Your task to perform on an android device: turn on bluetooth scan Image 0: 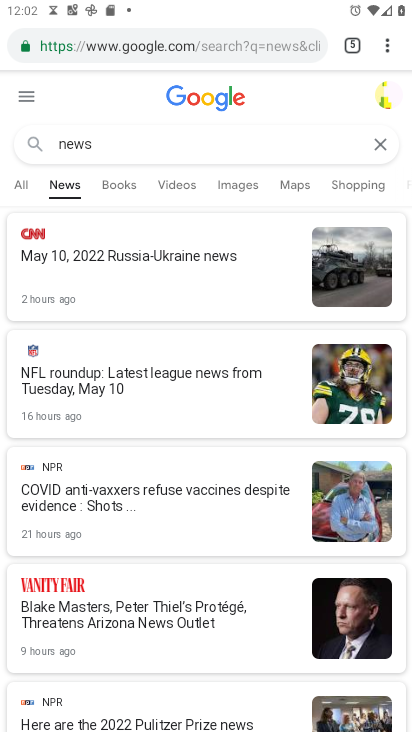
Step 0: press home button
Your task to perform on an android device: turn on bluetooth scan Image 1: 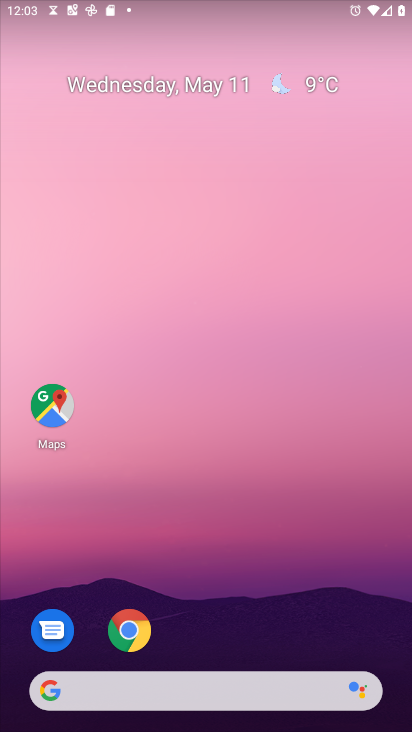
Step 1: drag from (280, 568) to (339, 253)
Your task to perform on an android device: turn on bluetooth scan Image 2: 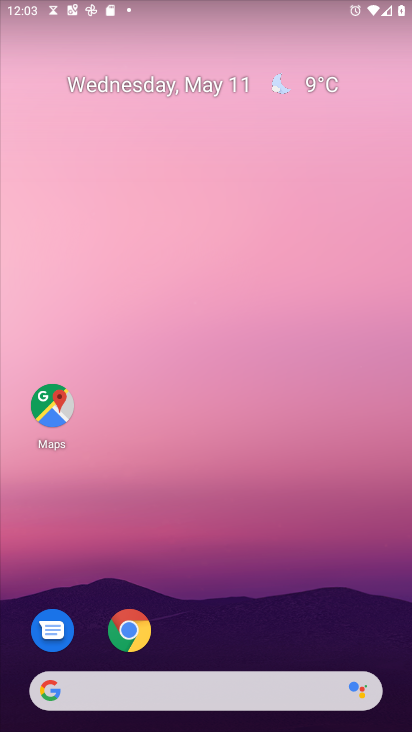
Step 2: drag from (256, 590) to (372, 57)
Your task to perform on an android device: turn on bluetooth scan Image 3: 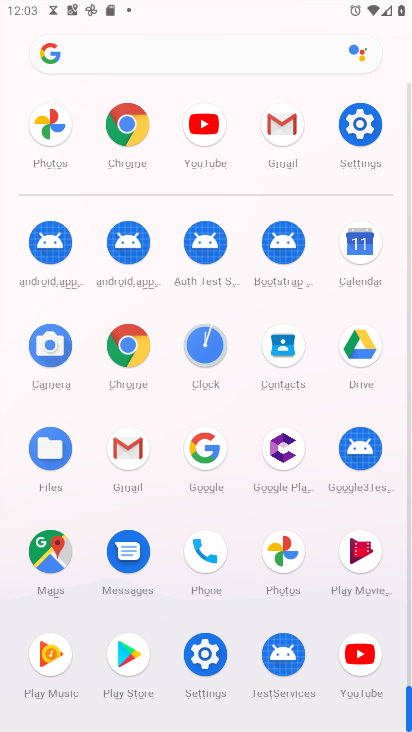
Step 3: click (354, 131)
Your task to perform on an android device: turn on bluetooth scan Image 4: 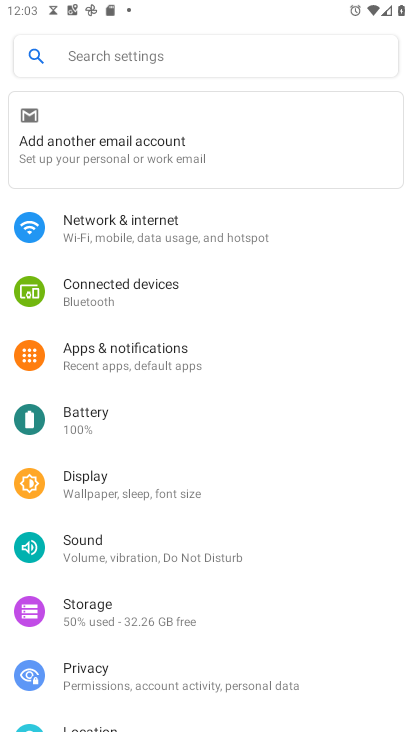
Step 4: click (83, 302)
Your task to perform on an android device: turn on bluetooth scan Image 5: 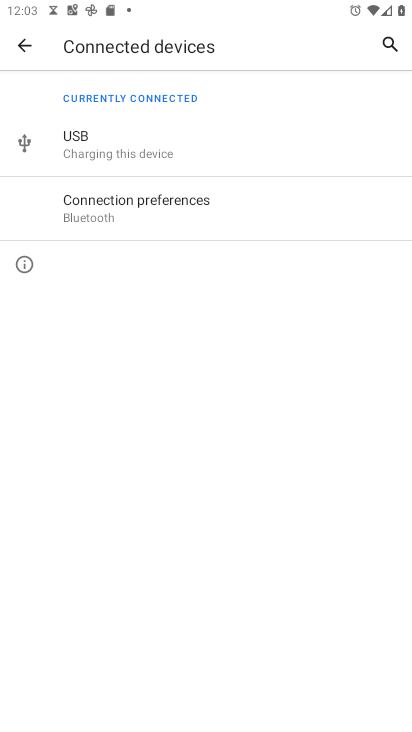
Step 5: click (160, 219)
Your task to perform on an android device: turn on bluetooth scan Image 6: 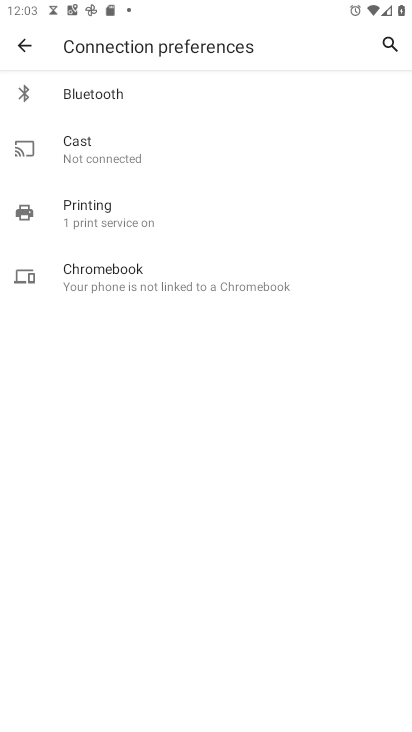
Step 6: click (152, 221)
Your task to perform on an android device: turn on bluetooth scan Image 7: 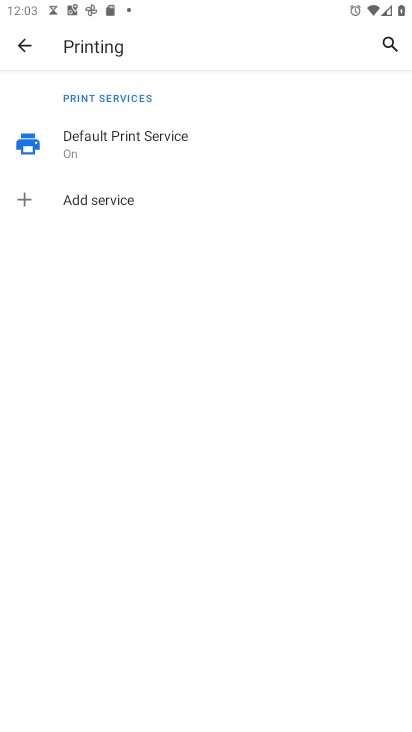
Step 7: click (27, 50)
Your task to perform on an android device: turn on bluetooth scan Image 8: 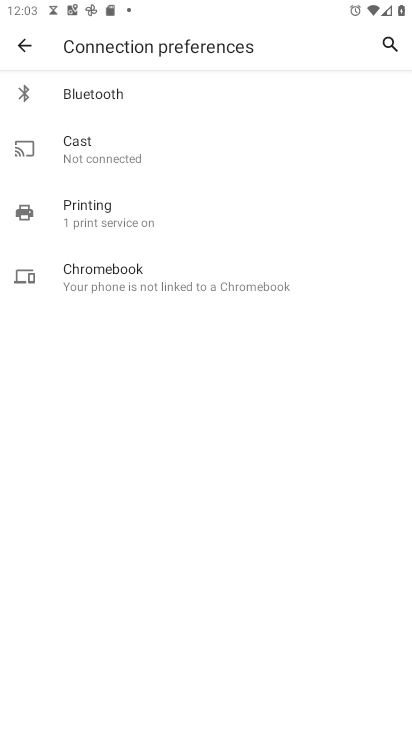
Step 8: click (82, 88)
Your task to perform on an android device: turn on bluetooth scan Image 9: 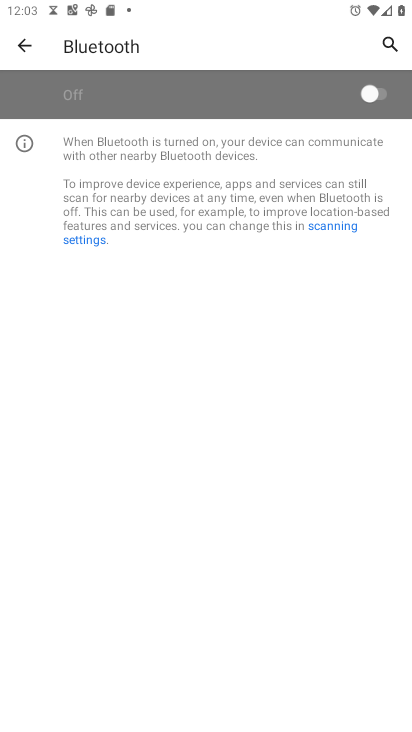
Step 9: click (369, 102)
Your task to perform on an android device: turn on bluetooth scan Image 10: 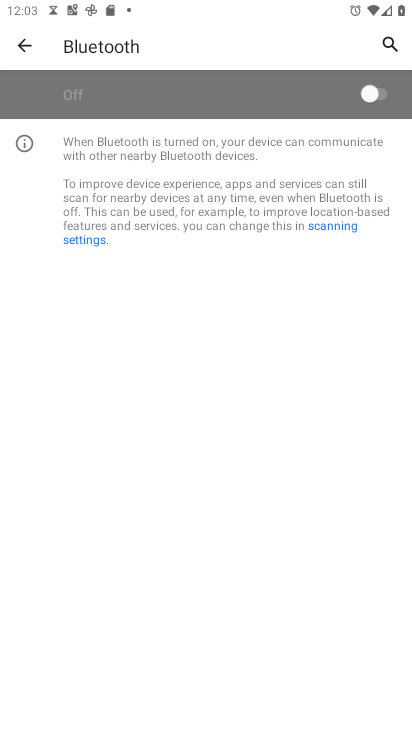
Step 10: click (380, 94)
Your task to perform on an android device: turn on bluetooth scan Image 11: 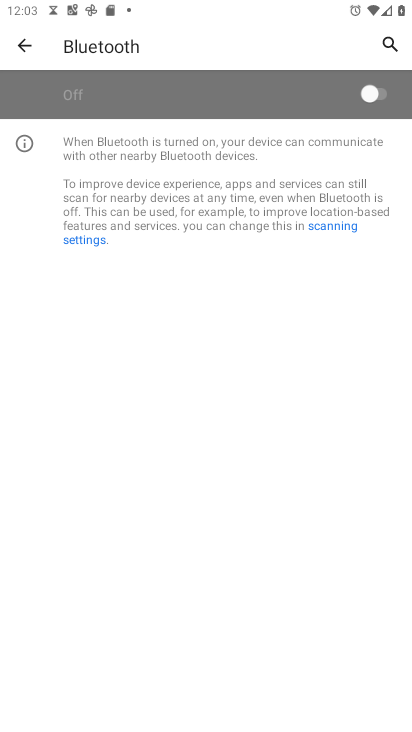
Step 11: click (365, 94)
Your task to perform on an android device: turn on bluetooth scan Image 12: 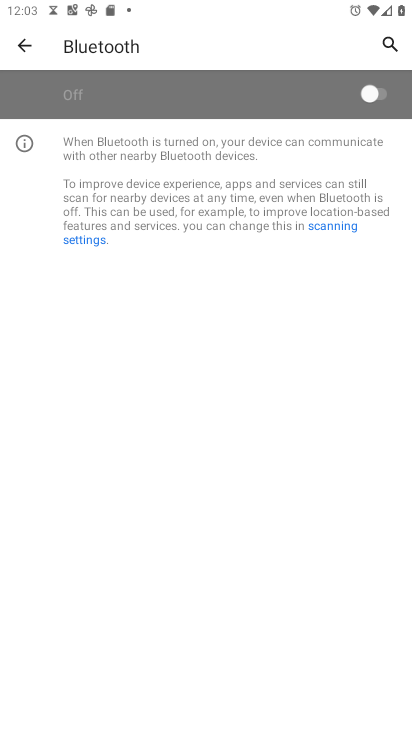
Step 12: click (365, 94)
Your task to perform on an android device: turn on bluetooth scan Image 13: 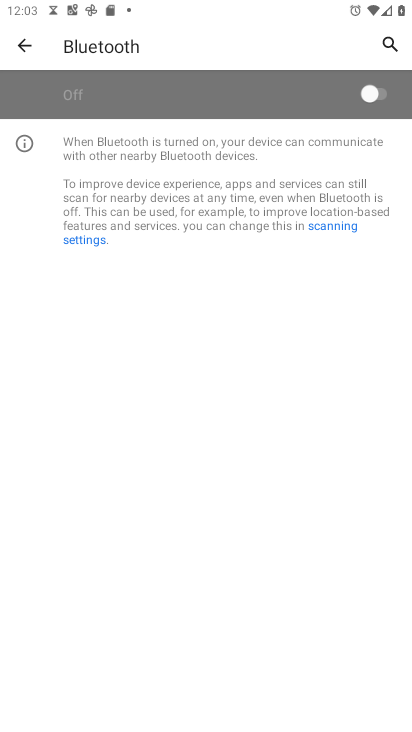
Step 13: click (364, 95)
Your task to perform on an android device: turn on bluetooth scan Image 14: 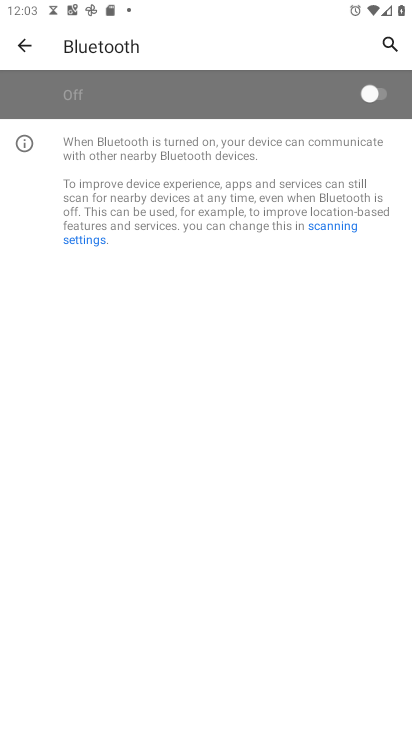
Step 14: click (365, 96)
Your task to perform on an android device: turn on bluetooth scan Image 15: 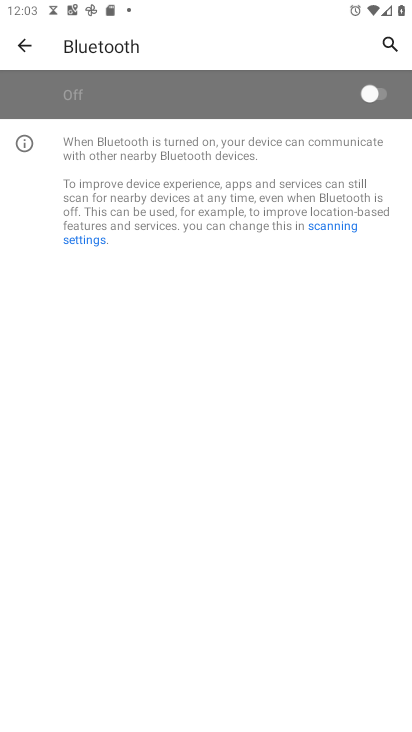
Step 15: click (365, 96)
Your task to perform on an android device: turn on bluetooth scan Image 16: 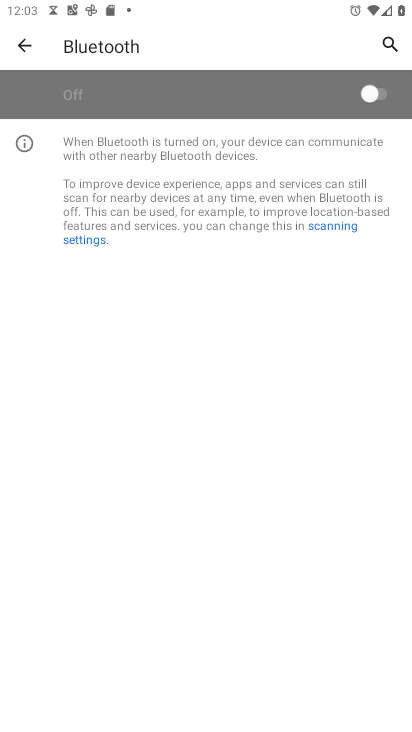
Step 16: drag from (365, 96) to (411, 100)
Your task to perform on an android device: turn on bluetooth scan Image 17: 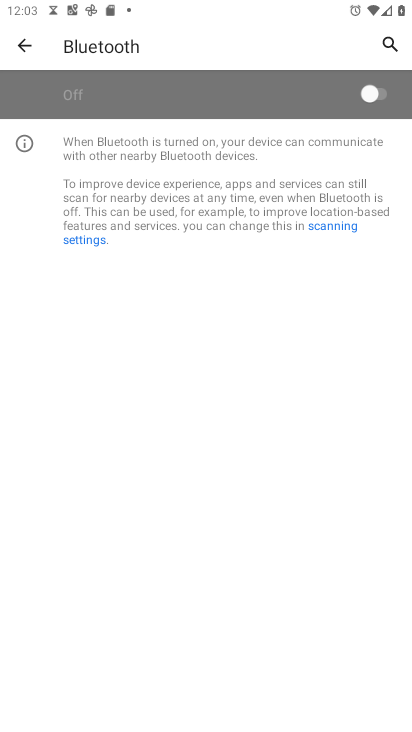
Step 17: click (219, 108)
Your task to perform on an android device: turn on bluetooth scan Image 18: 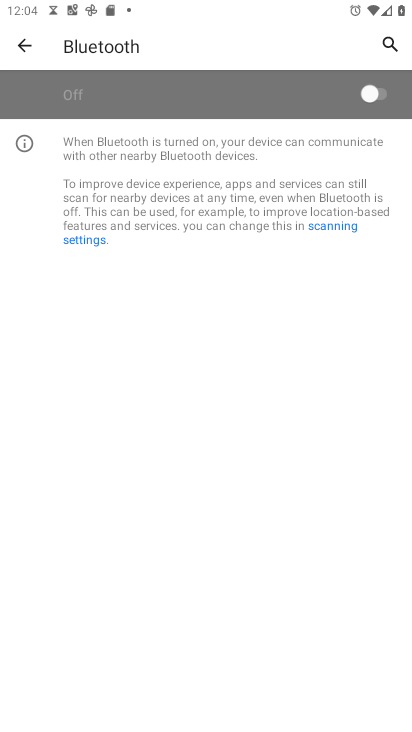
Step 18: click (369, 96)
Your task to perform on an android device: turn on bluetooth scan Image 19: 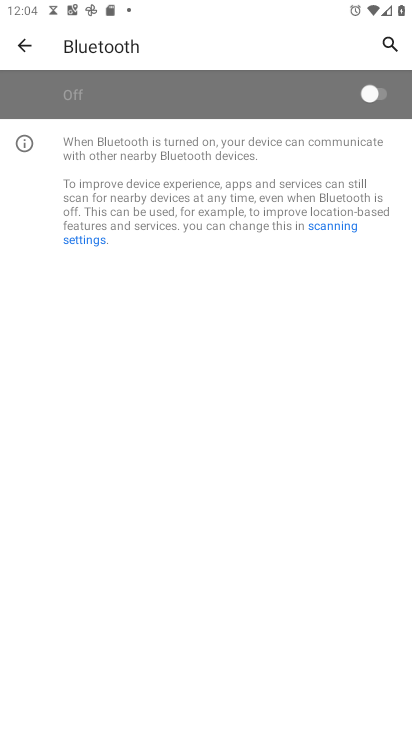
Step 19: drag from (369, 96) to (407, 94)
Your task to perform on an android device: turn on bluetooth scan Image 20: 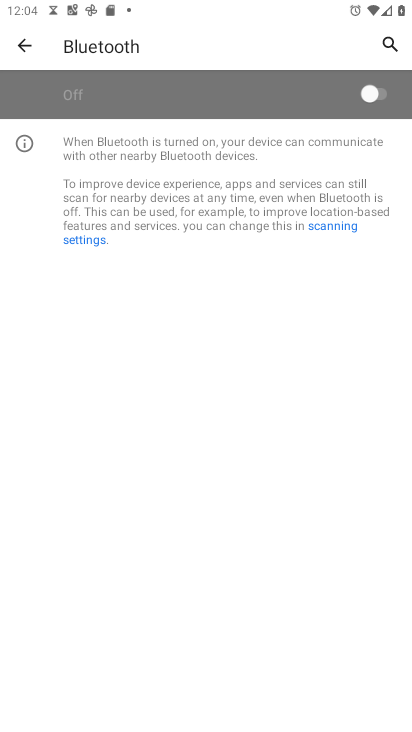
Step 20: click (368, 94)
Your task to perform on an android device: turn on bluetooth scan Image 21: 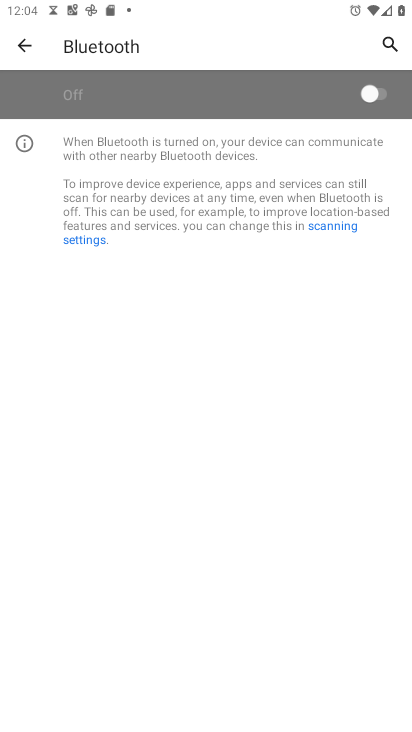
Step 21: click (368, 94)
Your task to perform on an android device: turn on bluetooth scan Image 22: 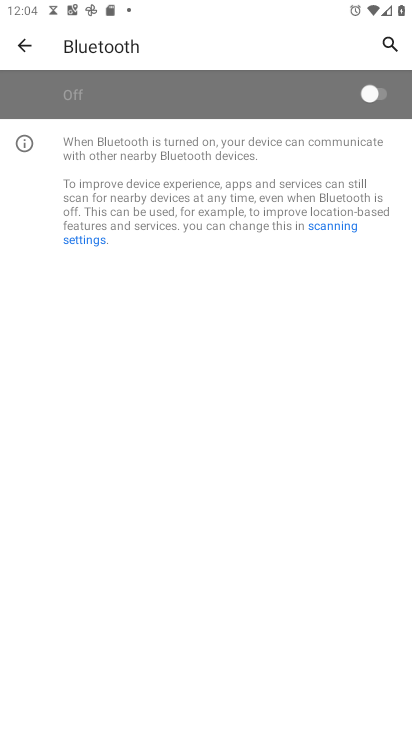
Step 22: click (368, 94)
Your task to perform on an android device: turn on bluetooth scan Image 23: 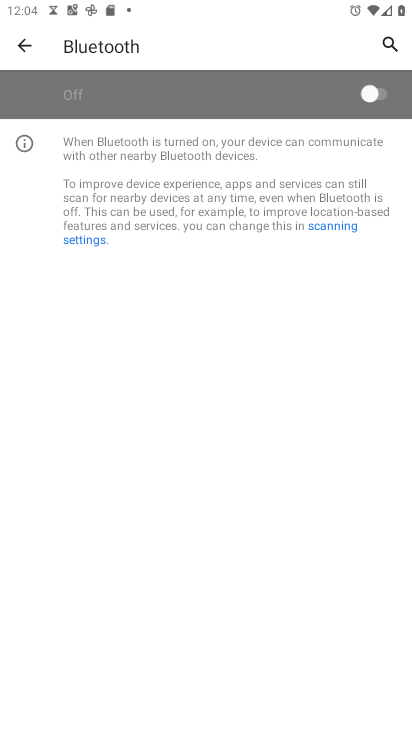
Step 23: click (368, 94)
Your task to perform on an android device: turn on bluetooth scan Image 24: 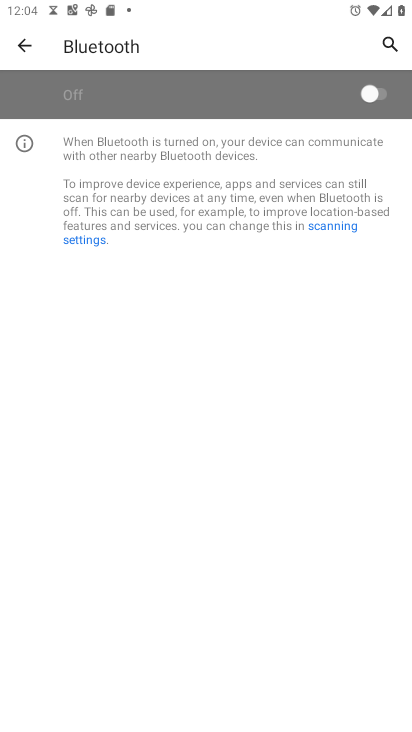
Step 24: click (368, 94)
Your task to perform on an android device: turn on bluetooth scan Image 25: 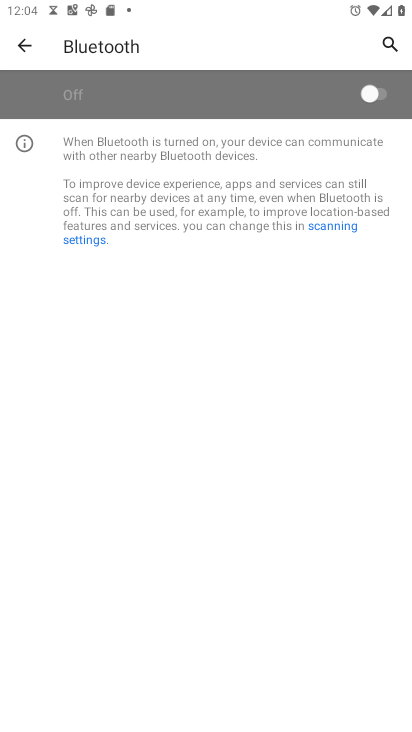
Step 25: click (368, 94)
Your task to perform on an android device: turn on bluetooth scan Image 26: 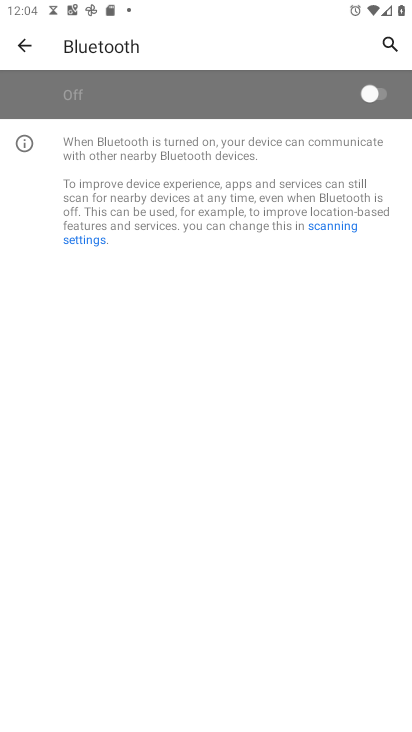
Step 26: click (364, 93)
Your task to perform on an android device: turn on bluetooth scan Image 27: 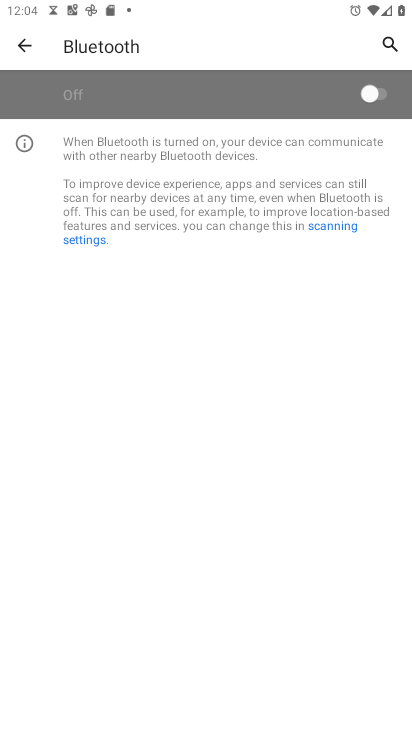
Step 27: drag from (370, 98) to (407, 98)
Your task to perform on an android device: turn on bluetooth scan Image 28: 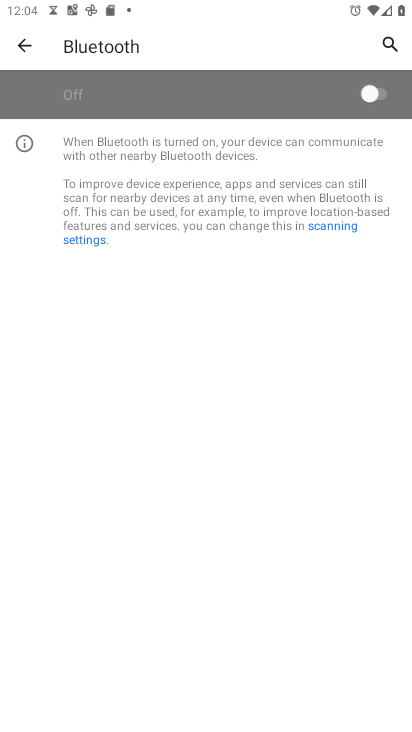
Step 28: click (335, 226)
Your task to perform on an android device: turn on bluetooth scan Image 29: 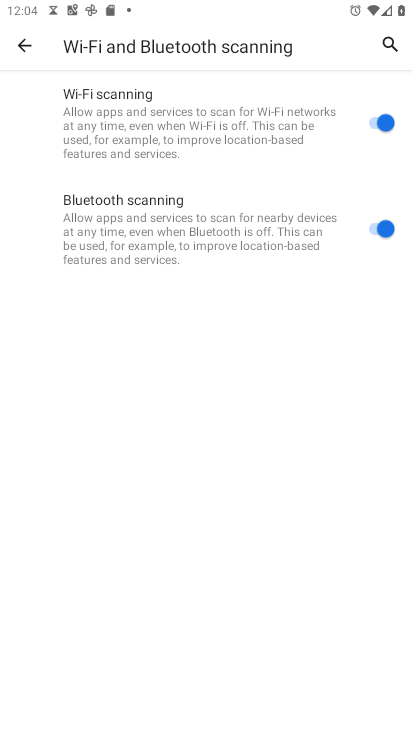
Step 29: click (33, 40)
Your task to perform on an android device: turn on bluetooth scan Image 30: 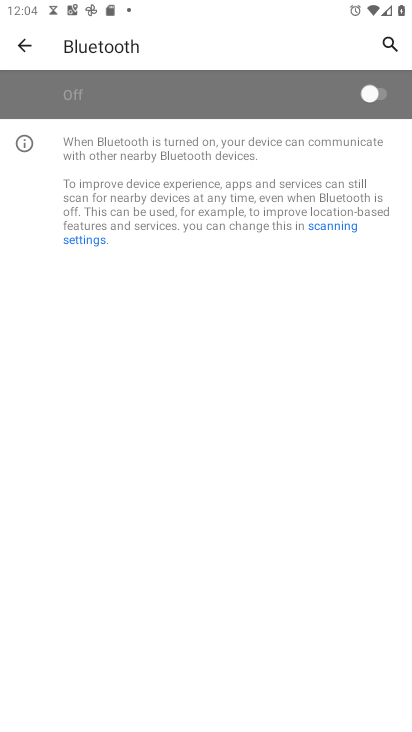
Step 30: click (32, 40)
Your task to perform on an android device: turn on bluetooth scan Image 31: 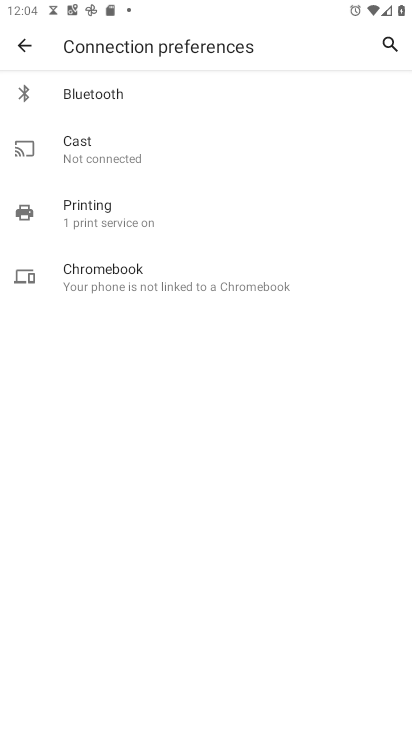
Step 31: click (32, 40)
Your task to perform on an android device: turn on bluetooth scan Image 32: 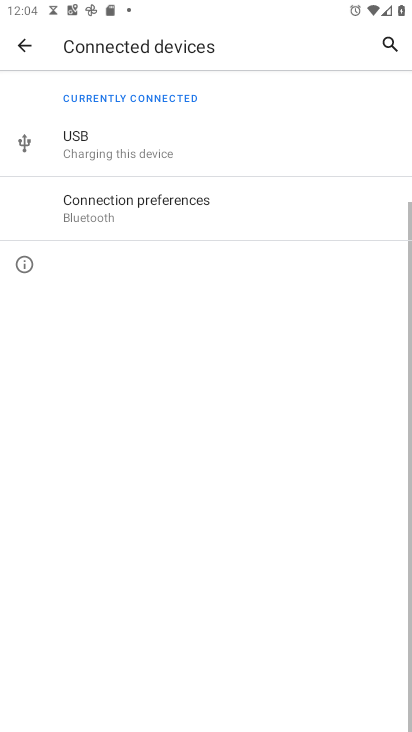
Step 32: click (32, 40)
Your task to perform on an android device: turn on bluetooth scan Image 33: 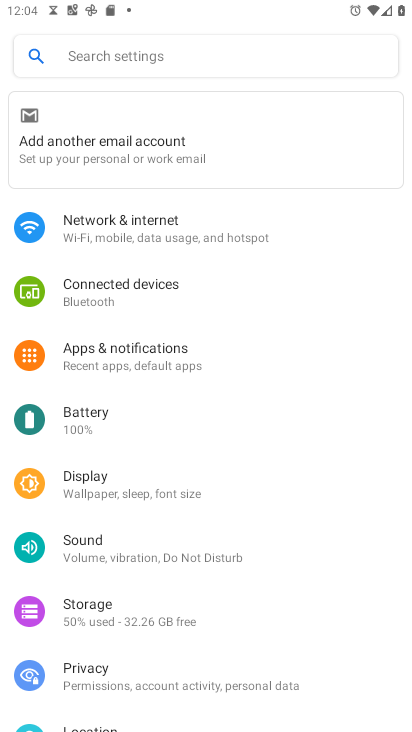
Step 33: task complete